Your task to perform on an android device: add a label to a message in the gmail app Image 0: 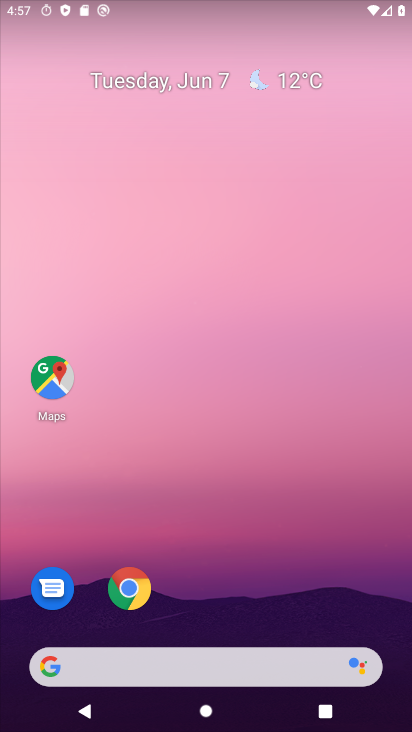
Step 0: drag from (249, 612) to (171, 57)
Your task to perform on an android device: add a label to a message in the gmail app Image 1: 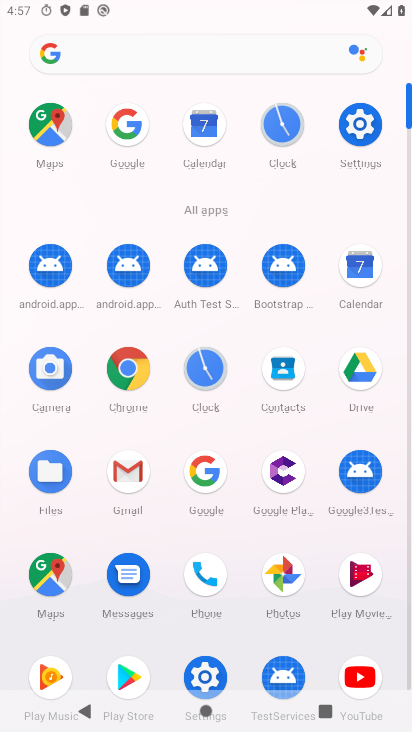
Step 1: click (129, 490)
Your task to perform on an android device: add a label to a message in the gmail app Image 2: 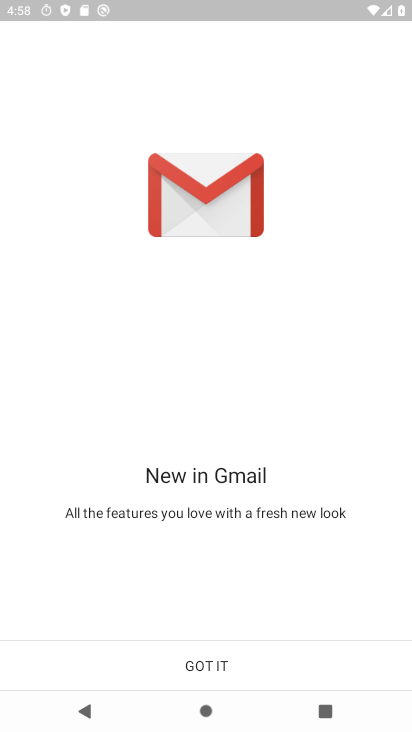
Step 2: click (208, 665)
Your task to perform on an android device: add a label to a message in the gmail app Image 3: 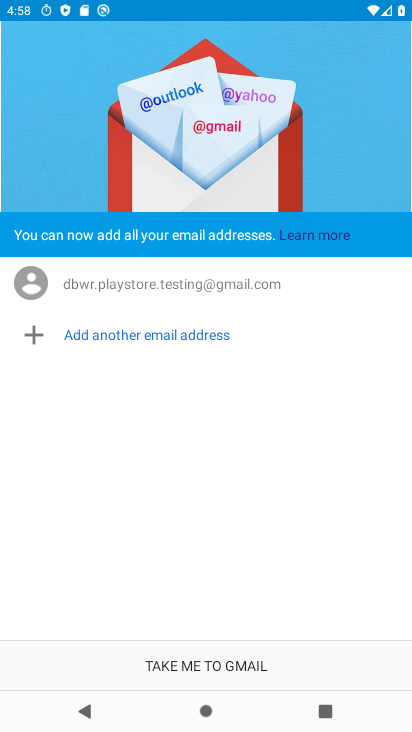
Step 3: click (220, 666)
Your task to perform on an android device: add a label to a message in the gmail app Image 4: 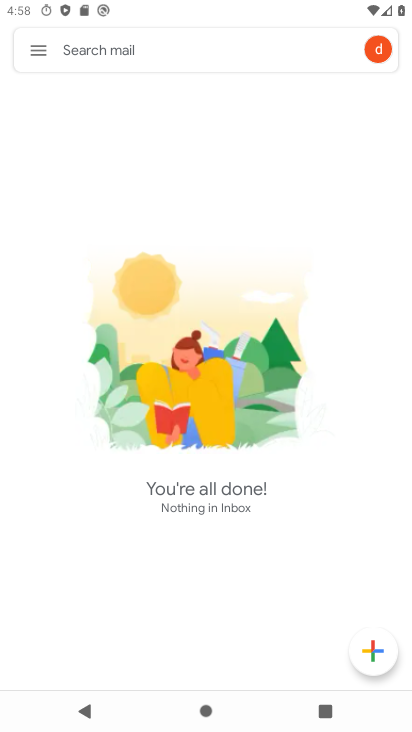
Step 4: click (45, 57)
Your task to perform on an android device: add a label to a message in the gmail app Image 5: 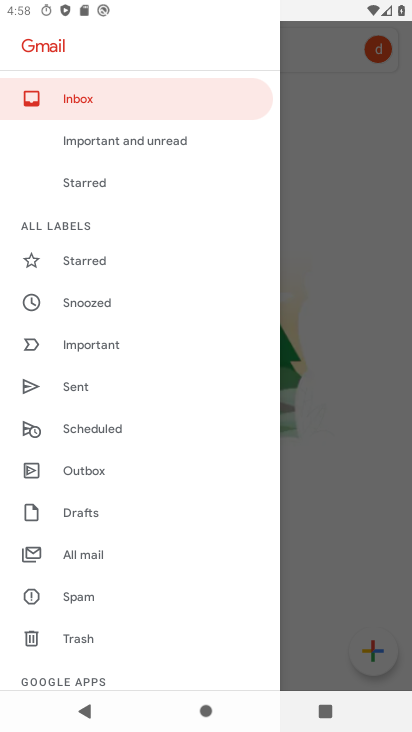
Step 5: click (85, 551)
Your task to perform on an android device: add a label to a message in the gmail app Image 6: 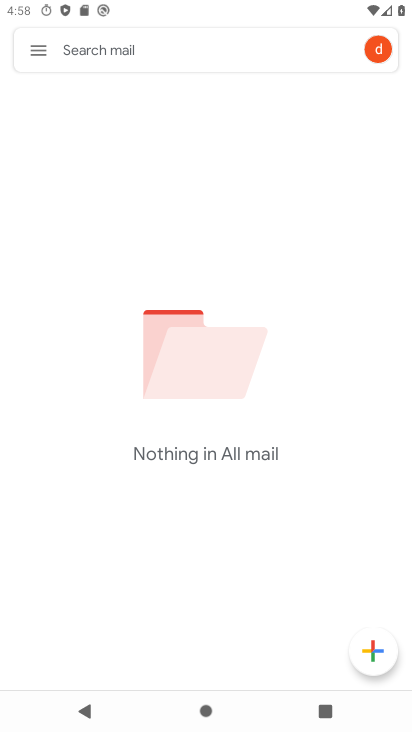
Step 6: task complete